Your task to perform on an android device: delete location history Image 0: 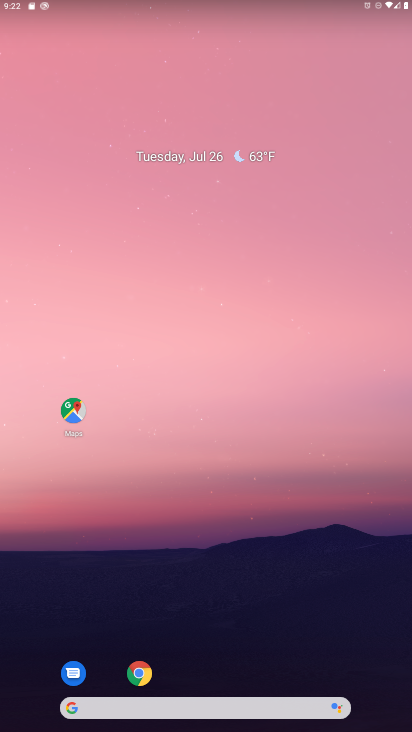
Step 0: drag from (353, 648) to (129, 38)
Your task to perform on an android device: delete location history Image 1: 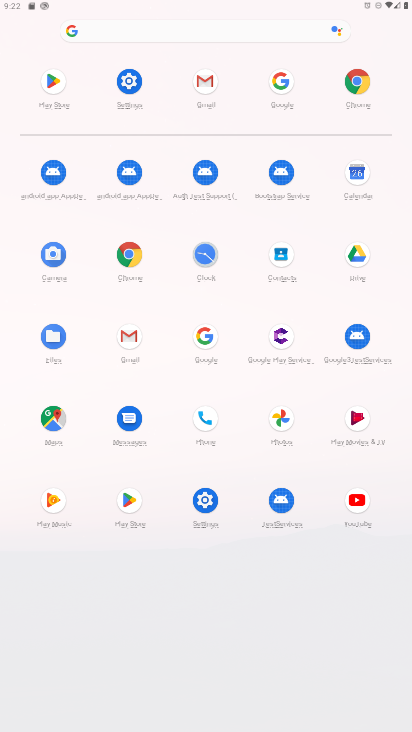
Step 1: click (199, 510)
Your task to perform on an android device: delete location history Image 2: 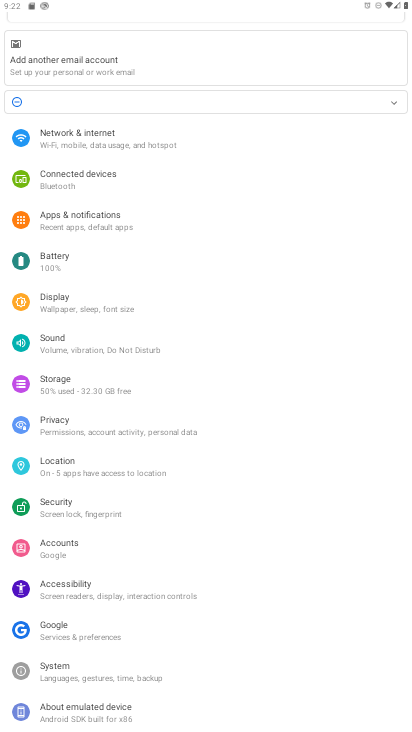
Step 2: click (36, 471)
Your task to perform on an android device: delete location history Image 3: 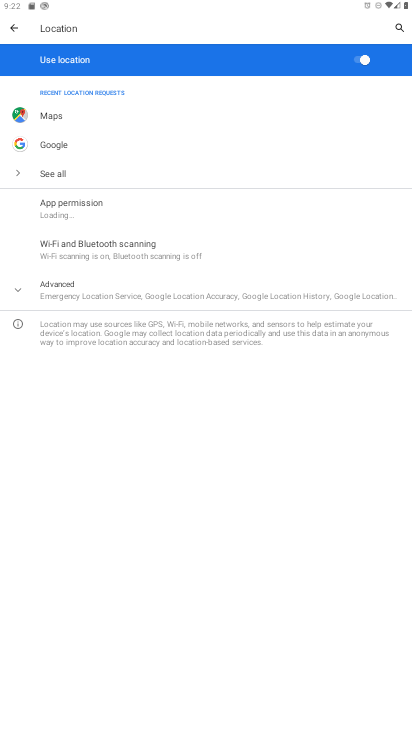
Step 3: click (72, 289)
Your task to perform on an android device: delete location history Image 4: 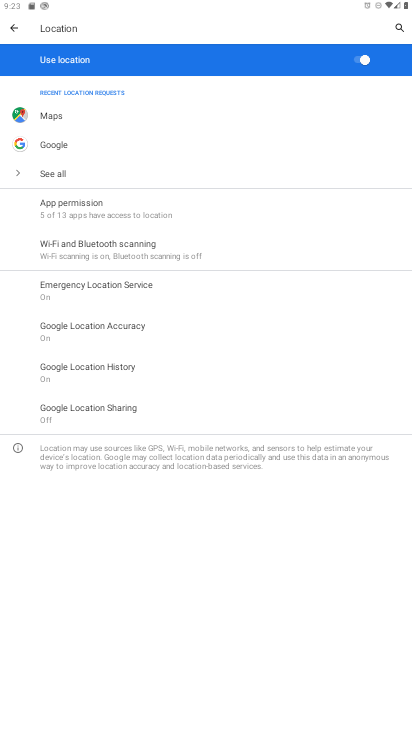
Step 4: click (98, 376)
Your task to perform on an android device: delete location history Image 5: 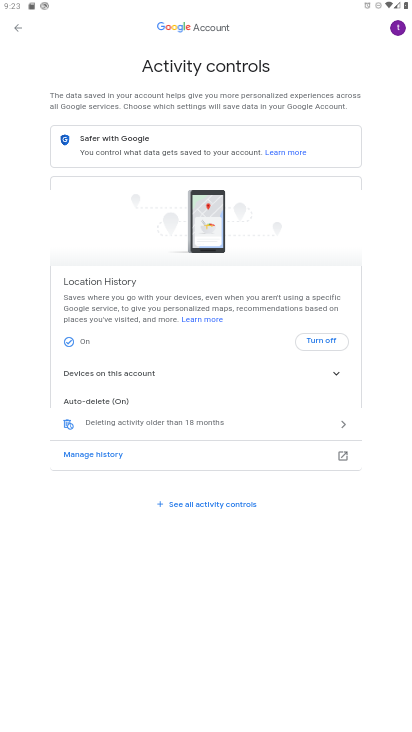
Step 5: click (123, 431)
Your task to perform on an android device: delete location history Image 6: 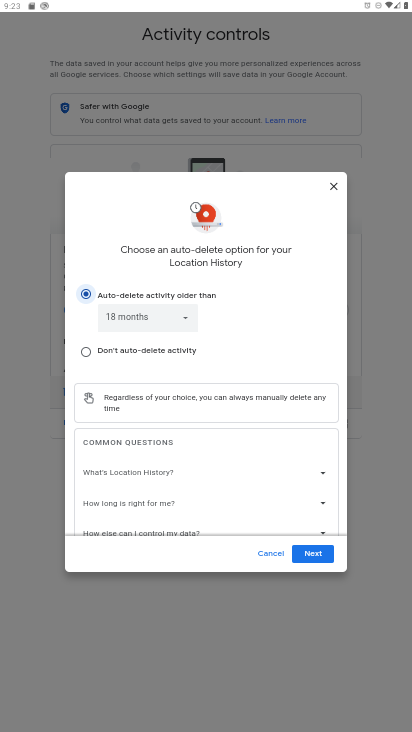
Step 6: click (312, 554)
Your task to perform on an android device: delete location history Image 7: 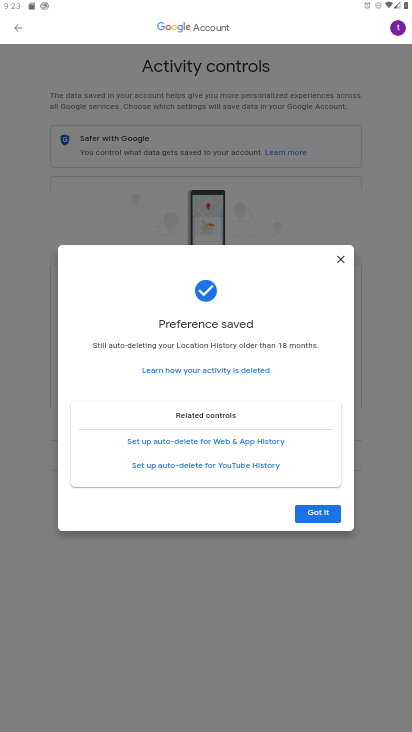
Step 7: task complete